Your task to perform on an android device: Open Google Image 0: 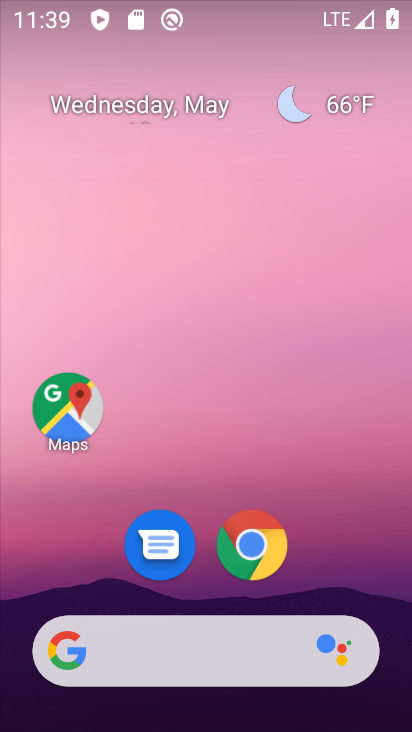
Step 0: drag from (97, 720) to (186, 219)
Your task to perform on an android device: Open Google Image 1: 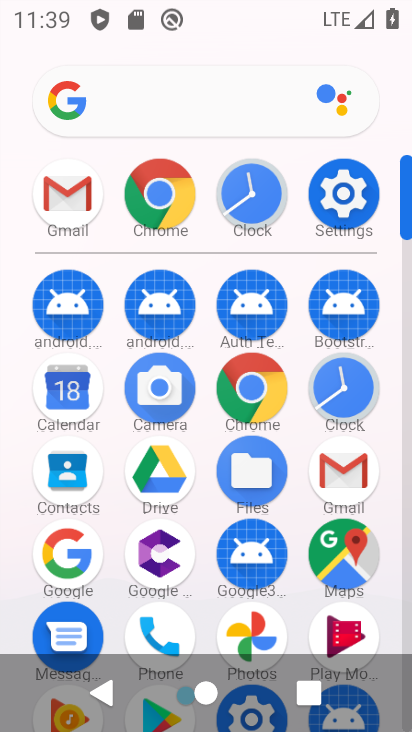
Step 1: click (59, 553)
Your task to perform on an android device: Open Google Image 2: 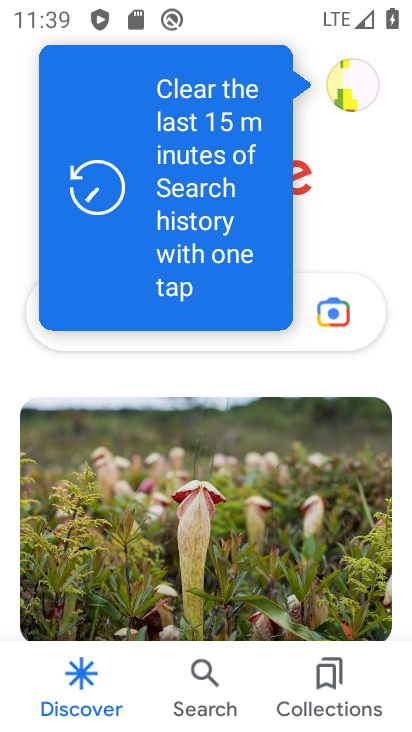
Step 2: task complete